Your task to perform on an android device: Open Google Maps Image 0: 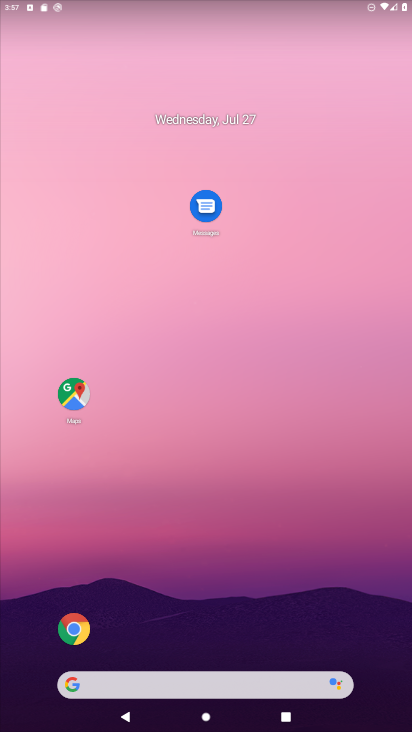
Step 0: click (64, 385)
Your task to perform on an android device: Open Google Maps Image 1: 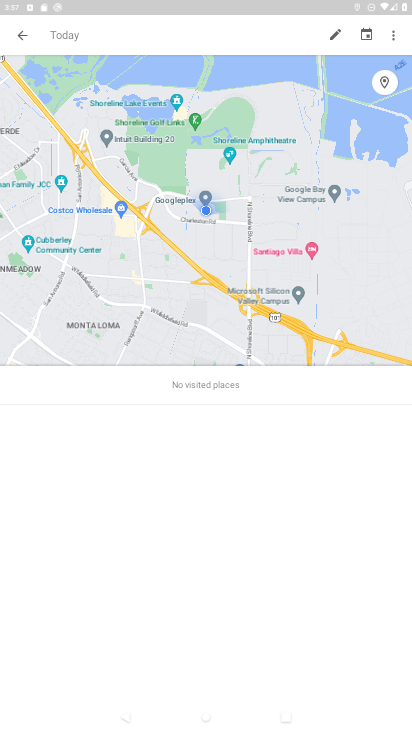
Step 1: task complete